Your task to perform on an android device: Open Reddit.com Image 0: 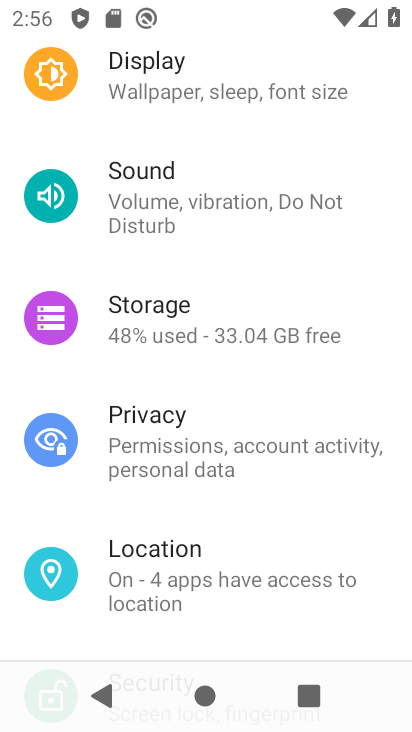
Step 0: press home button
Your task to perform on an android device: Open Reddit.com Image 1: 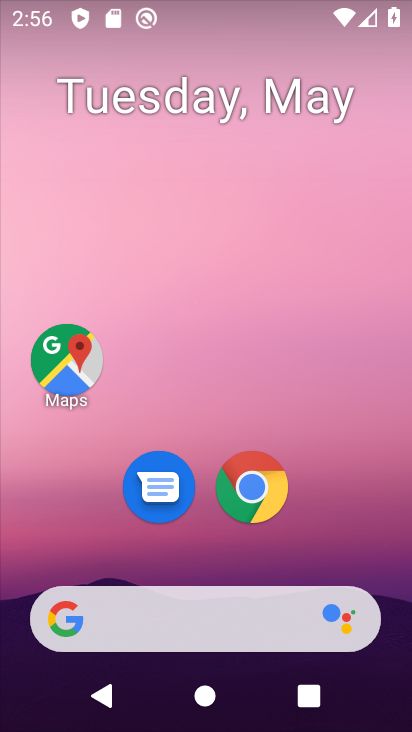
Step 1: click (252, 507)
Your task to perform on an android device: Open Reddit.com Image 2: 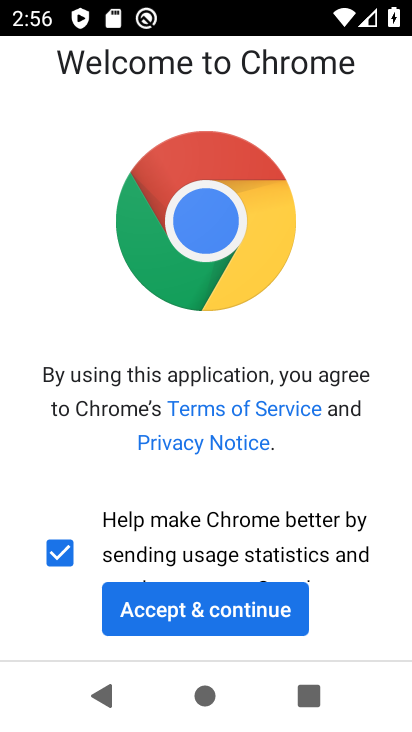
Step 2: click (239, 612)
Your task to perform on an android device: Open Reddit.com Image 3: 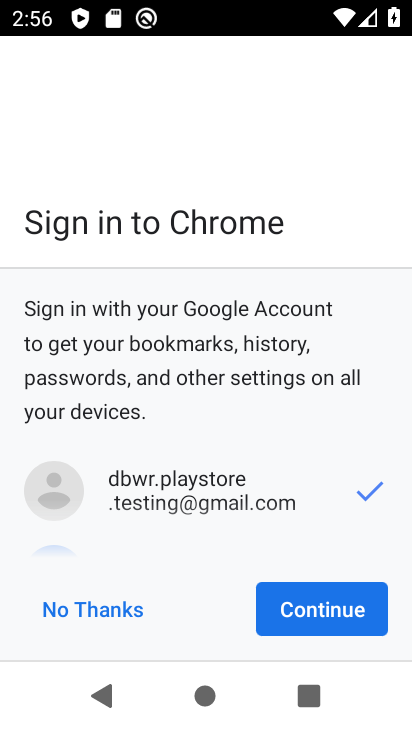
Step 3: click (329, 596)
Your task to perform on an android device: Open Reddit.com Image 4: 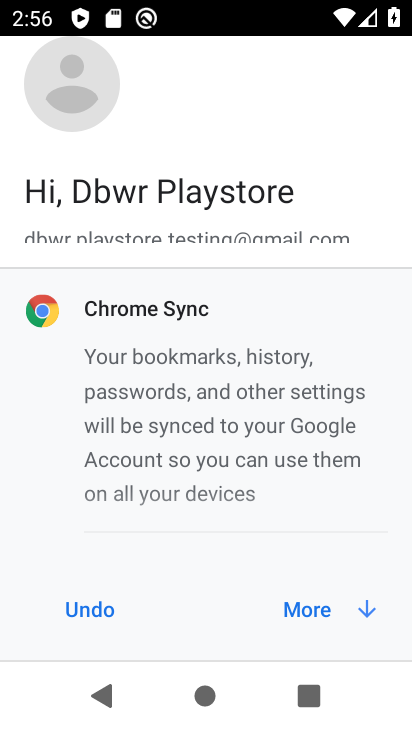
Step 4: click (305, 621)
Your task to perform on an android device: Open Reddit.com Image 5: 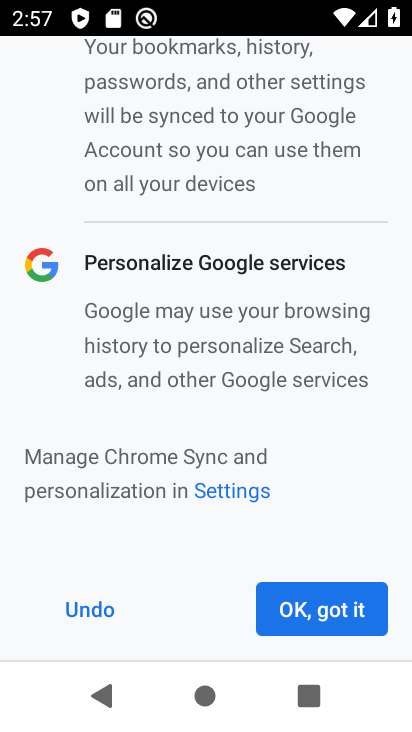
Step 5: click (339, 602)
Your task to perform on an android device: Open Reddit.com Image 6: 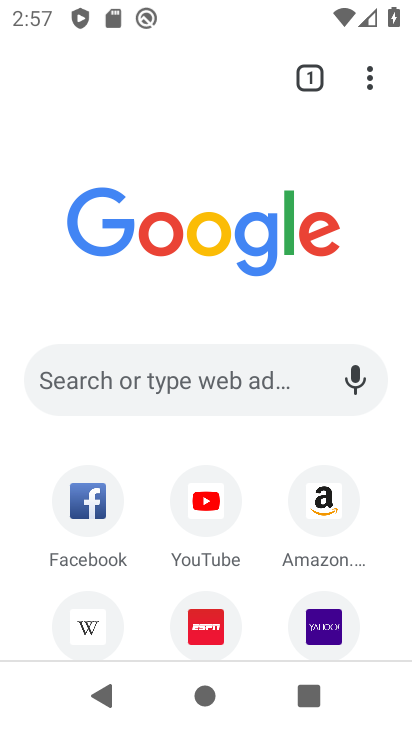
Step 6: click (165, 377)
Your task to perform on an android device: Open Reddit.com Image 7: 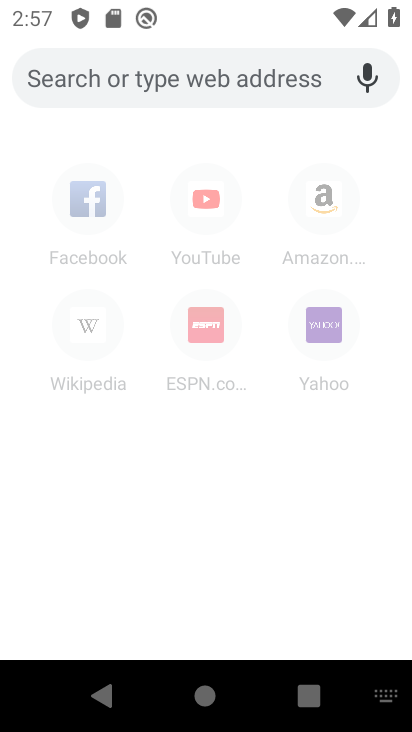
Step 7: type "reddit"
Your task to perform on an android device: Open Reddit.com Image 8: 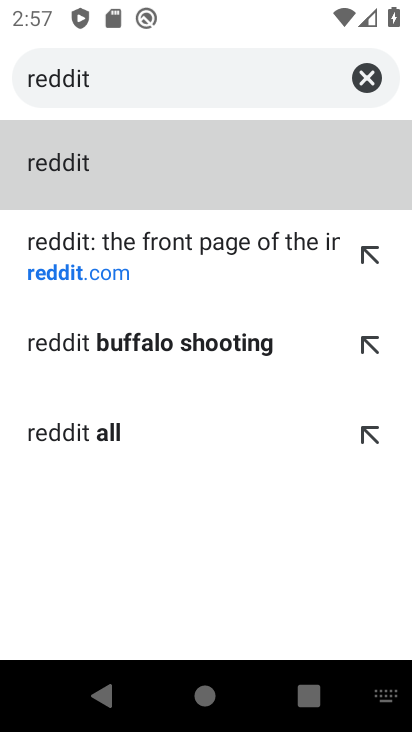
Step 8: click (75, 260)
Your task to perform on an android device: Open Reddit.com Image 9: 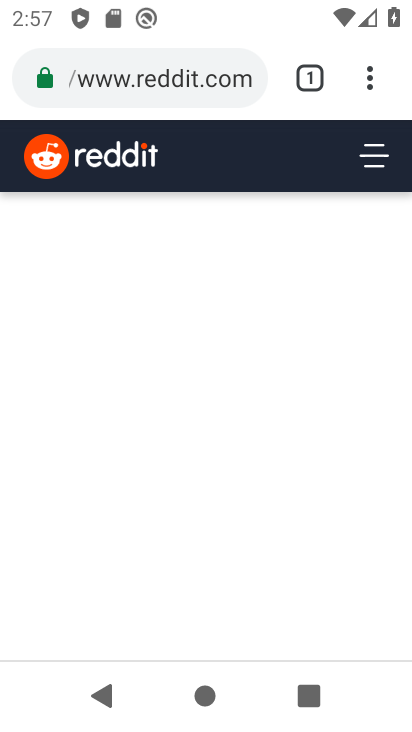
Step 9: task complete